Your task to perform on an android device: Open maps Image 0: 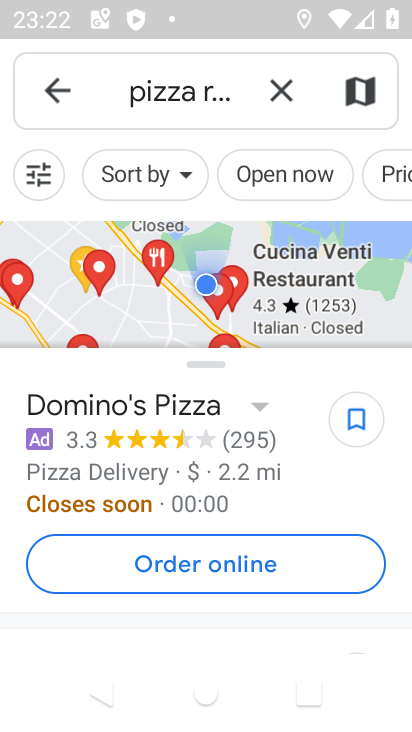
Step 0: task complete